Your task to perform on an android device: What's on my calendar tomorrow? Image 0: 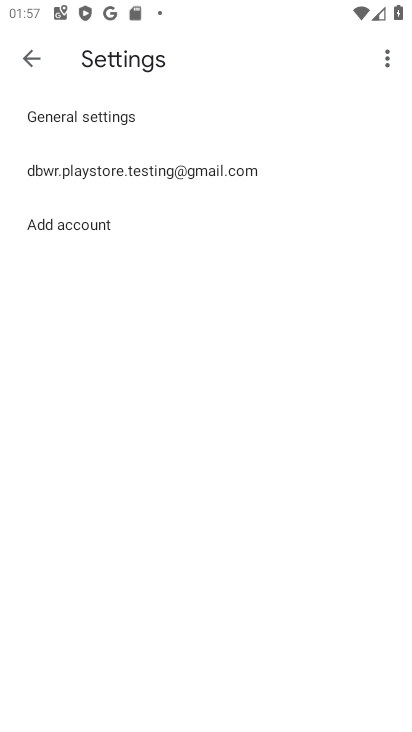
Step 0: click (245, 352)
Your task to perform on an android device: What's on my calendar tomorrow? Image 1: 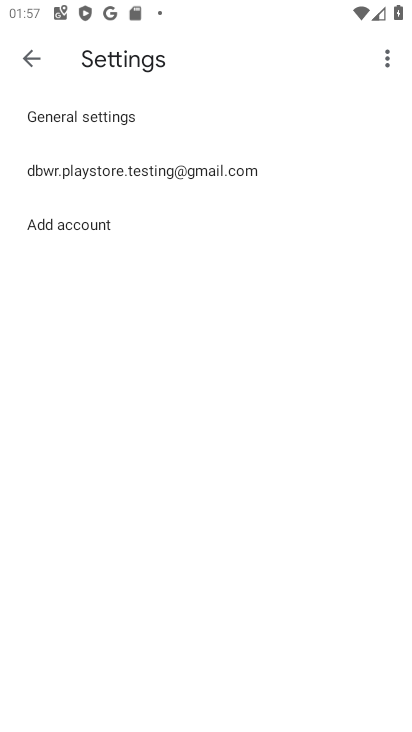
Step 1: press home button
Your task to perform on an android device: What's on my calendar tomorrow? Image 2: 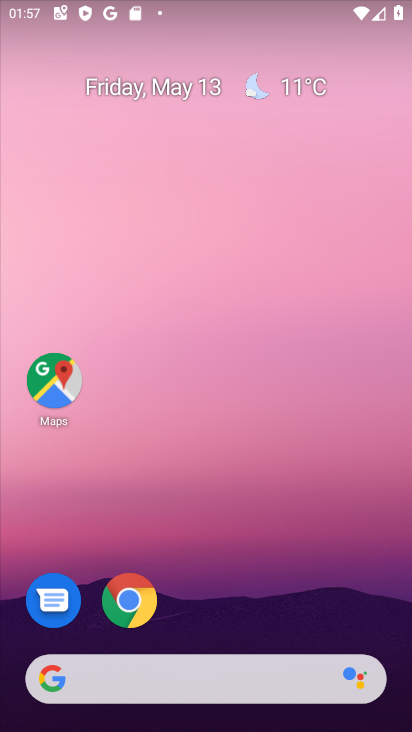
Step 2: drag from (236, 644) to (295, 101)
Your task to perform on an android device: What's on my calendar tomorrow? Image 3: 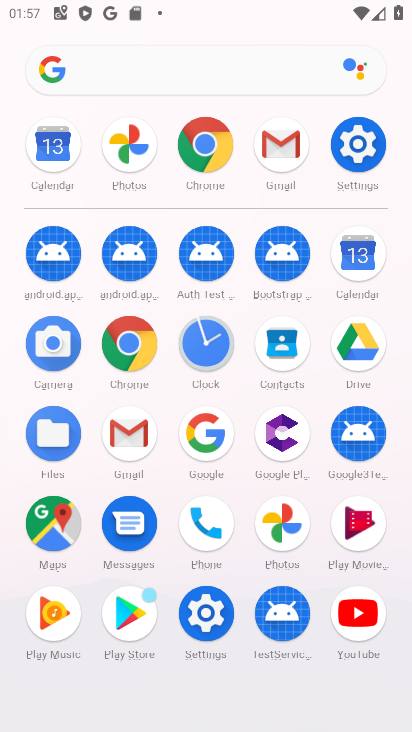
Step 3: click (361, 260)
Your task to perform on an android device: What's on my calendar tomorrow? Image 4: 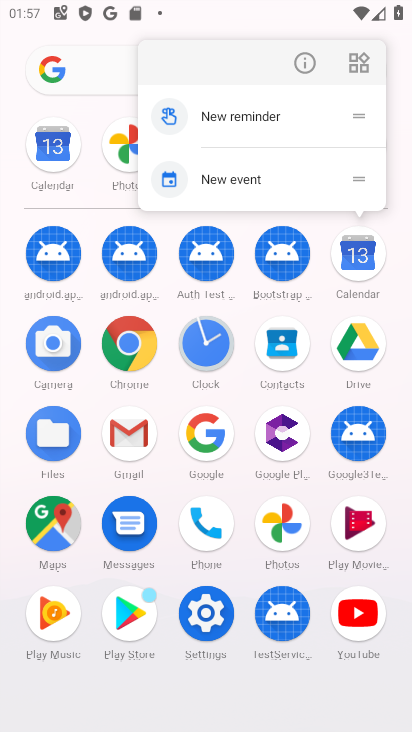
Step 4: click (302, 73)
Your task to perform on an android device: What's on my calendar tomorrow? Image 5: 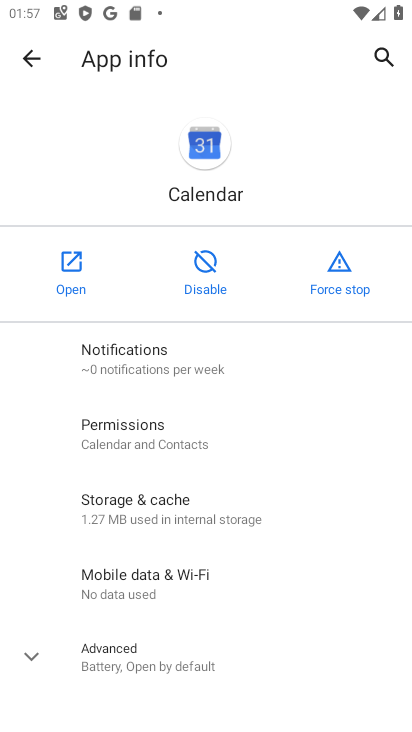
Step 5: click (55, 261)
Your task to perform on an android device: What's on my calendar tomorrow? Image 6: 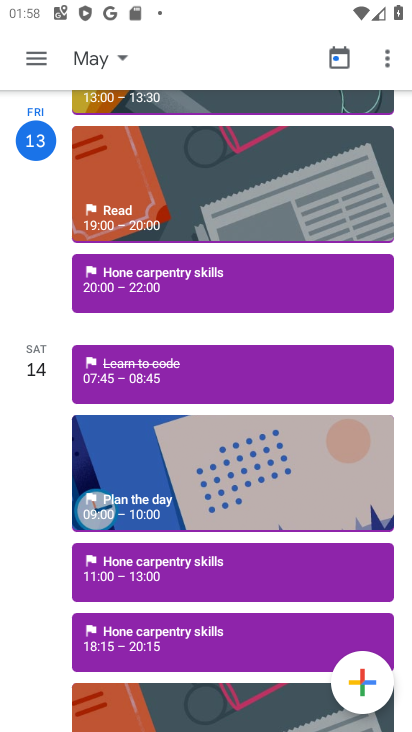
Step 6: click (96, 62)
Your task to perform on an android device: What's on my calendar tomorrow? Image 7: 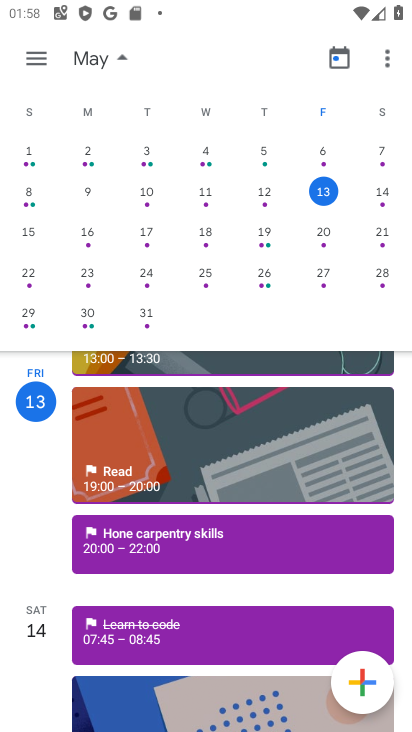
Step 7: click (395, 195)
Your task to perform on an android device: What's on my calendar tomorrow? Image 8: 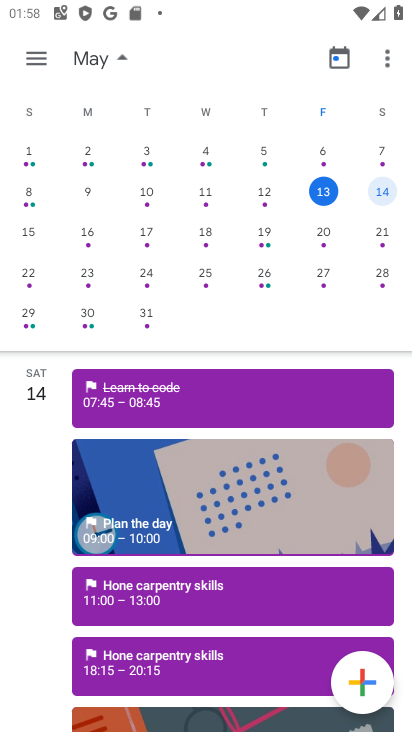
Step 8: drag from (245, 585) to (283, 193)
Your task to perform on an android device: What's on my calendar tomorrow? Image 9: 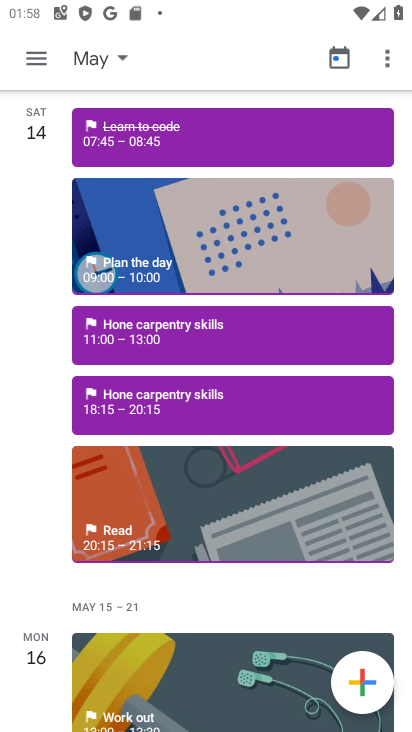
Step 9: click (167, 325)
Your task to perform on an android device: What's on my calendar tomorrow? Image 10: 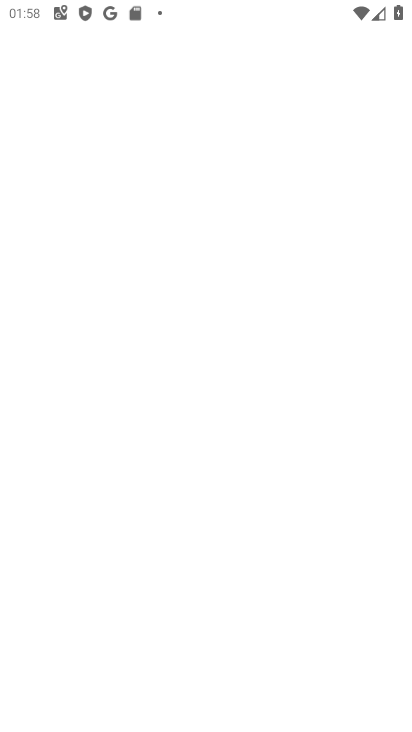
Step 10: task complete